Your task to perform on an android device: install app "Lyft - Rideshare, Bikes, Scooters & Transit" Image 0: 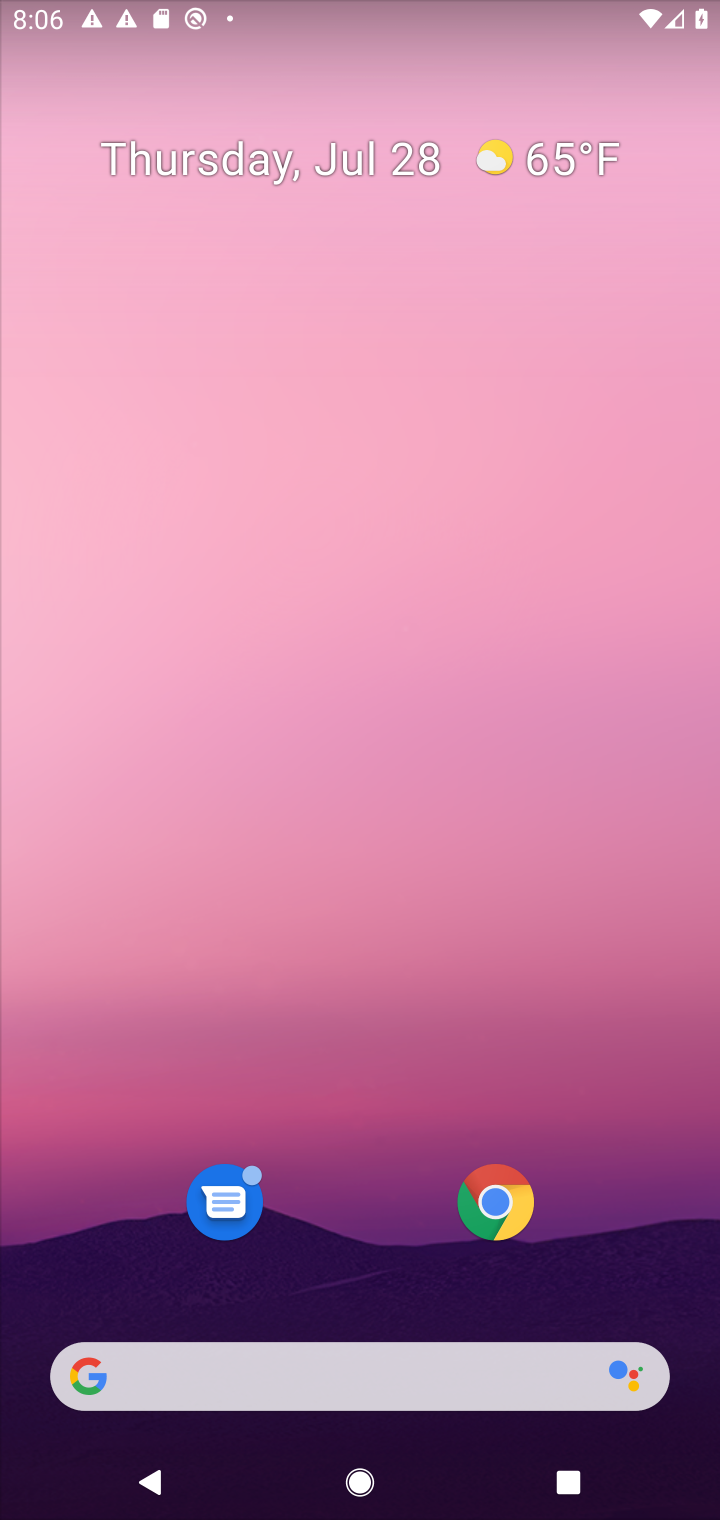
Step 0: drag from (358, 1308) to (405, 34)
Your task to perform on an android device: install app "Lyft - Rideshare, Bikes, Scooters & Transit" Image 1: 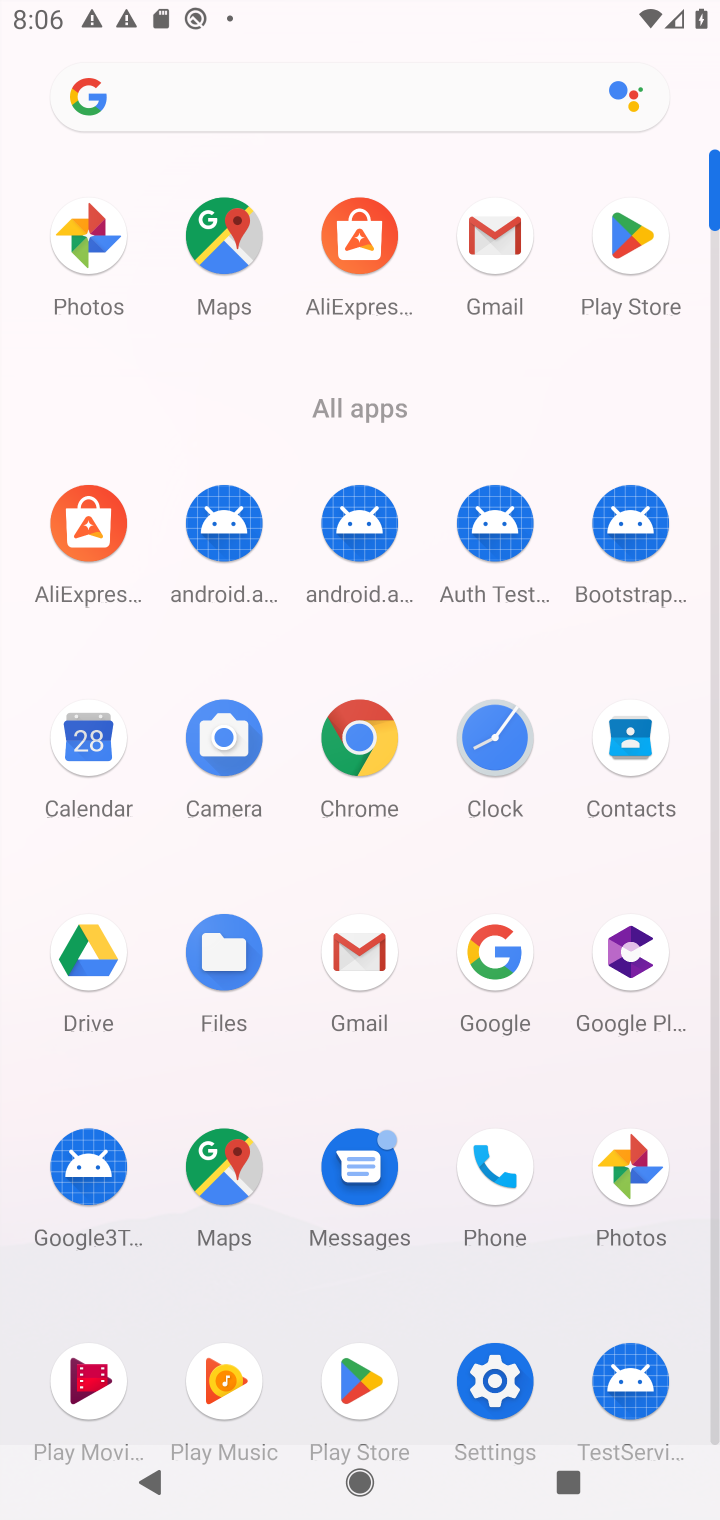
Step 1: click (625, 235)
Your task to perform on an android device: install app "Lyft - Rideshare, Bikes, Scooters & Transit" Image 2: 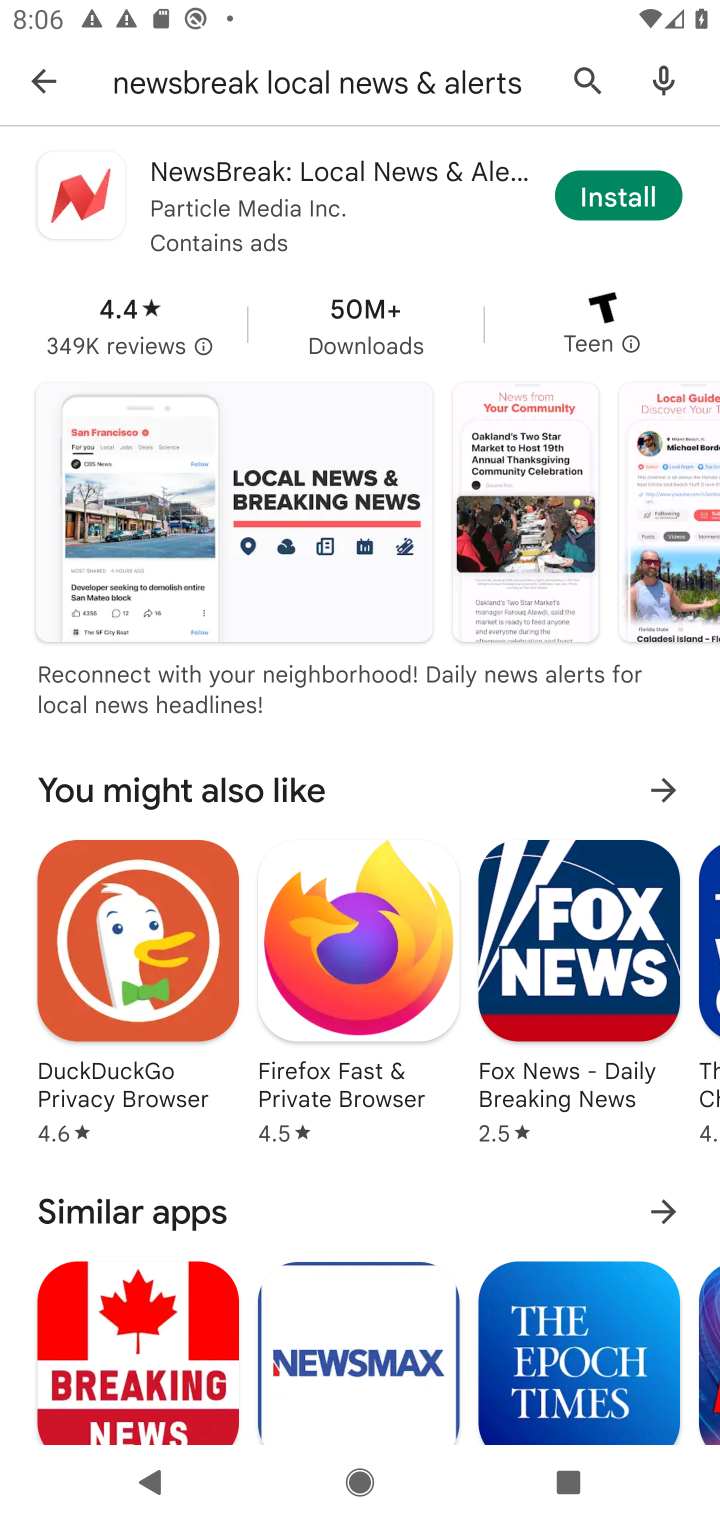
Step 2: click (576, 76)
Your task to perform on an android device: install app "Lyft - Rideshare, Bikes, Scooters & Transit" Image 3: 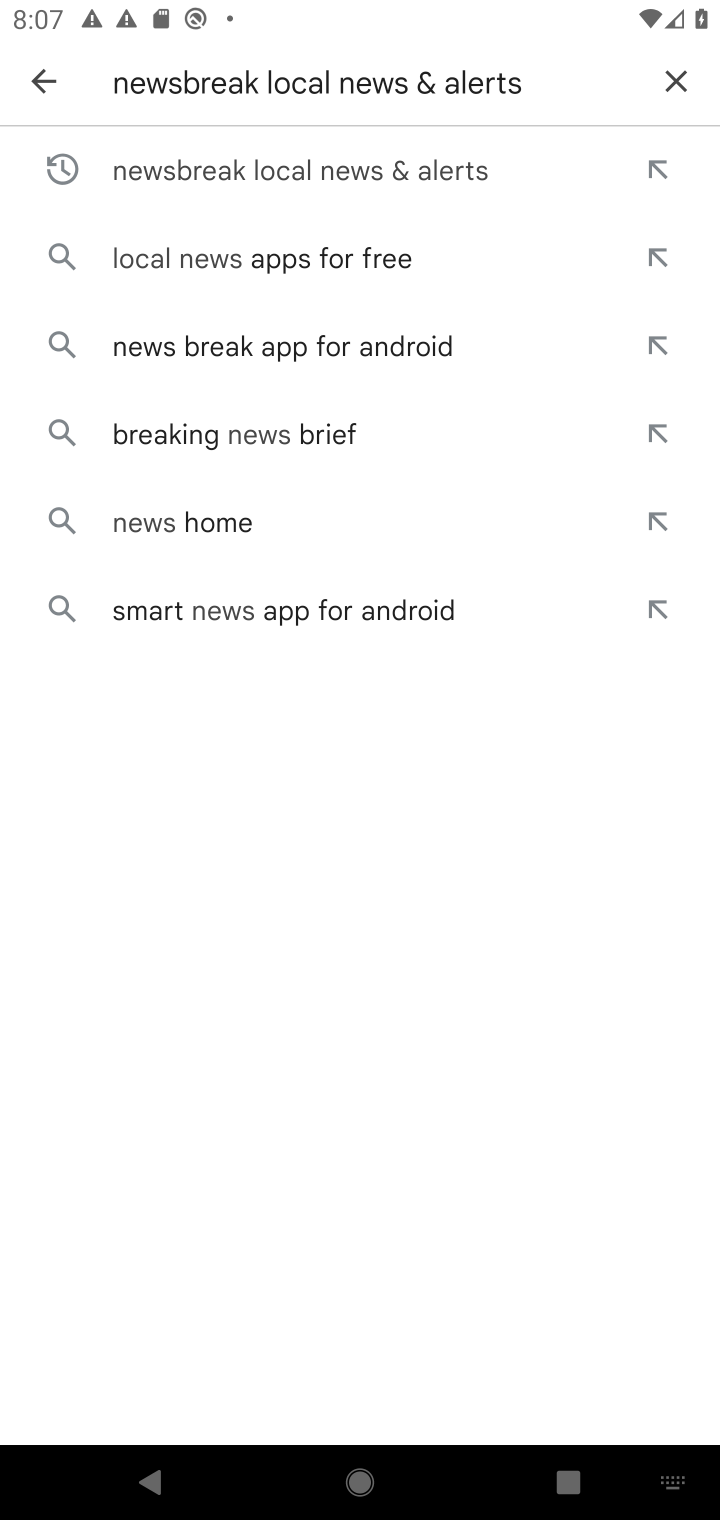
Step 3: click (668, 80)
Your task to perform on an android device: install app "Lyft - Rideshare, Bikes, Scooters & Transit" Image 4: 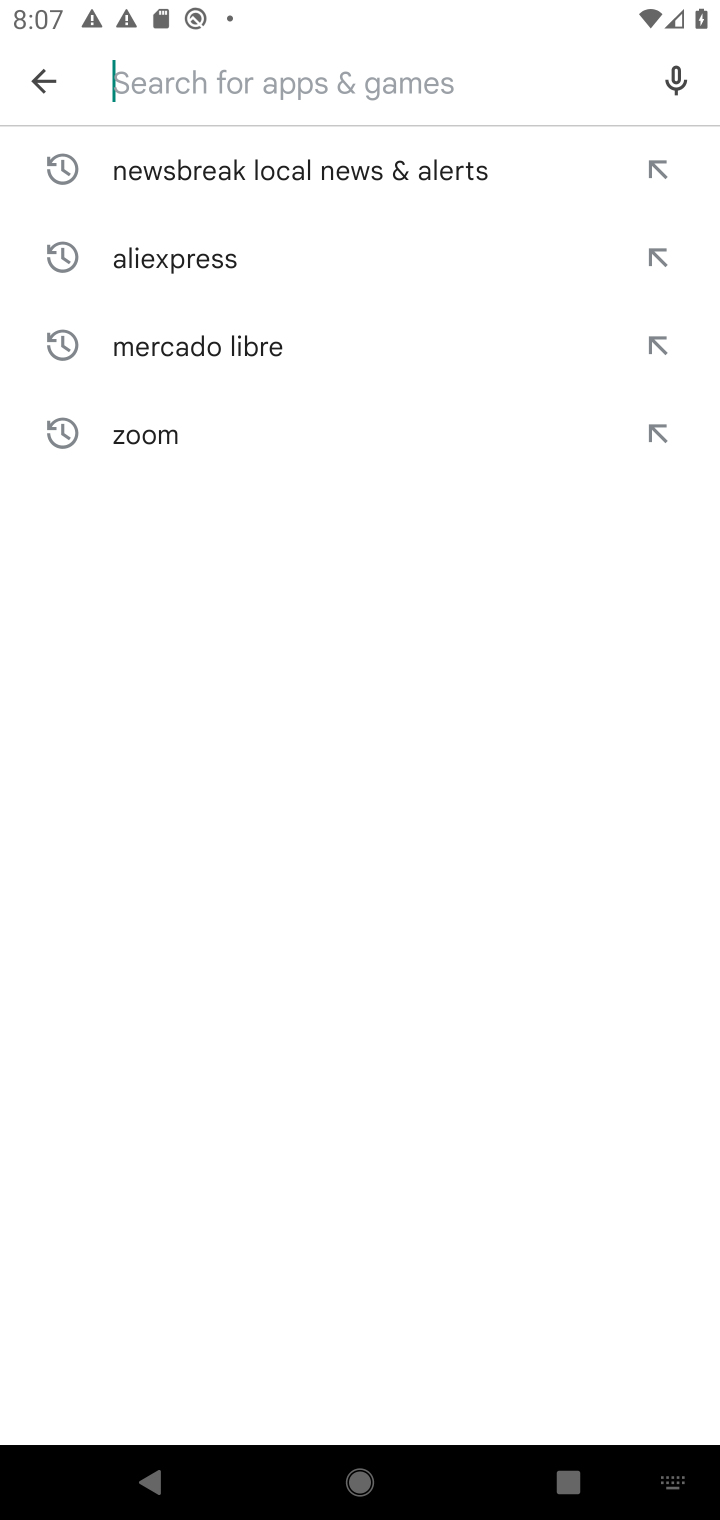
Step 4: type "Lyft - Rideshare, Bikes, Scooters & Transit"
Your task to perform on an android device: install app "Lyft - Rideshare, Bikes, Scooters & Transit" Image 5: 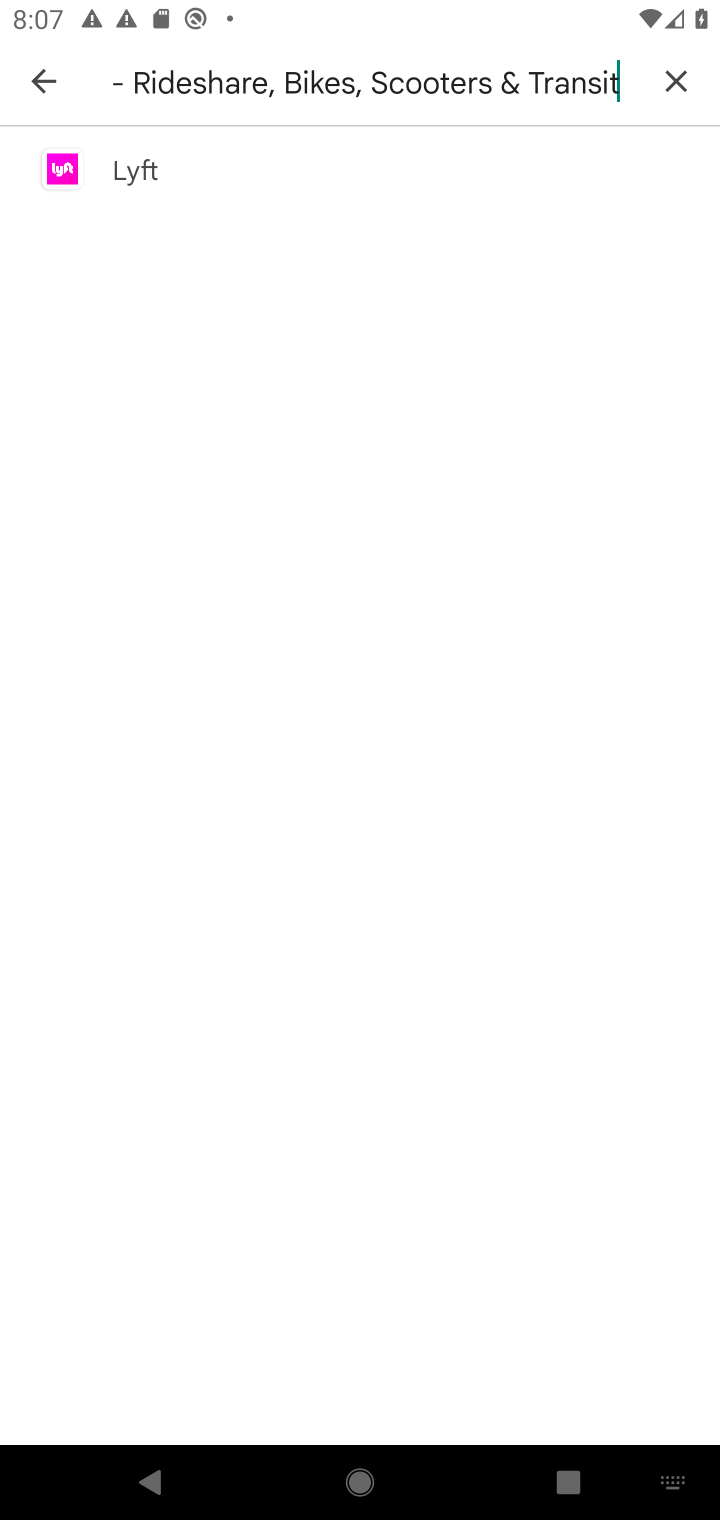
Step 5: click (169, 166)
Your task to perform on an android device: install app "Lyft - Rideshare, Bikes, Scooters & Transit" Image 6: 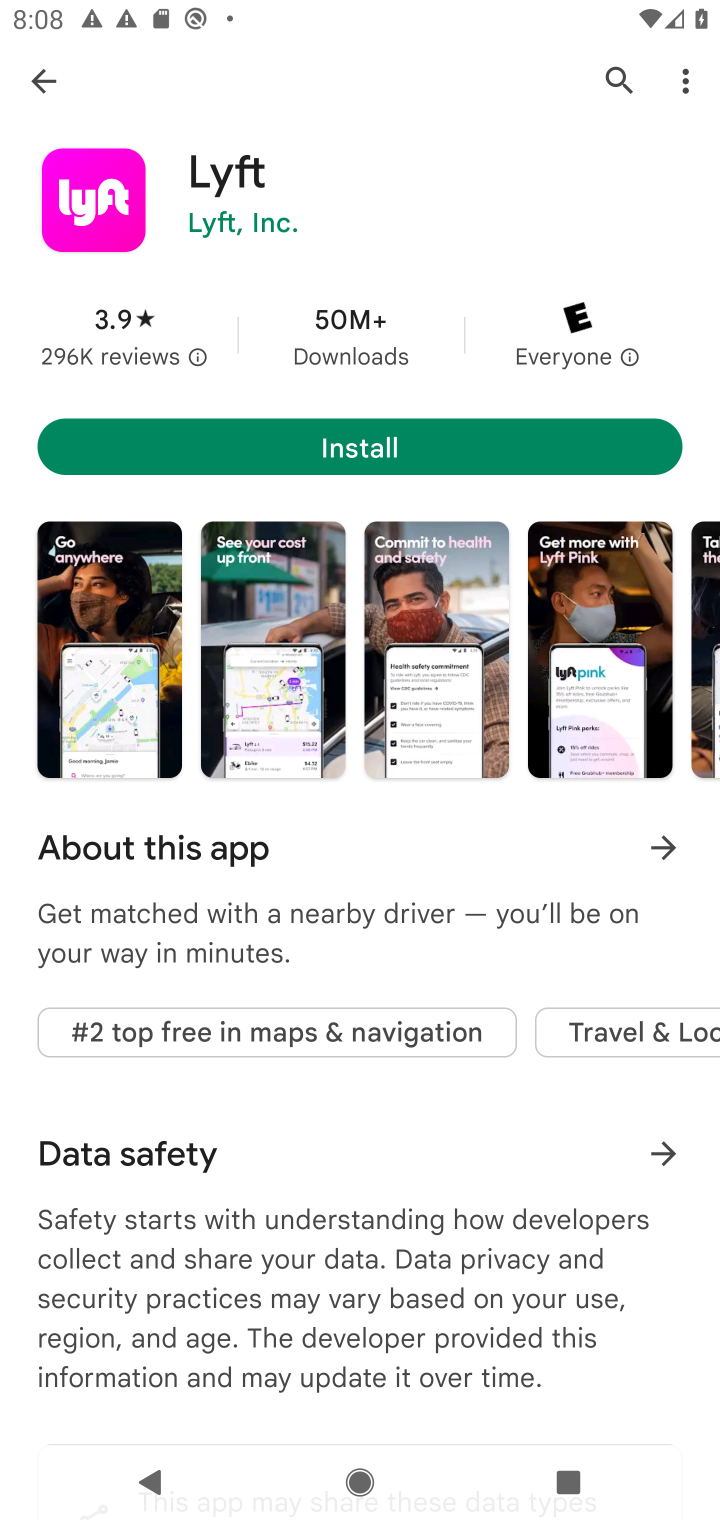
Step 6: click (339, 456)
Your task to perform on an android device: install app "Lyft - Rideshare, Bikes, Scooters & Transit" Image 7: 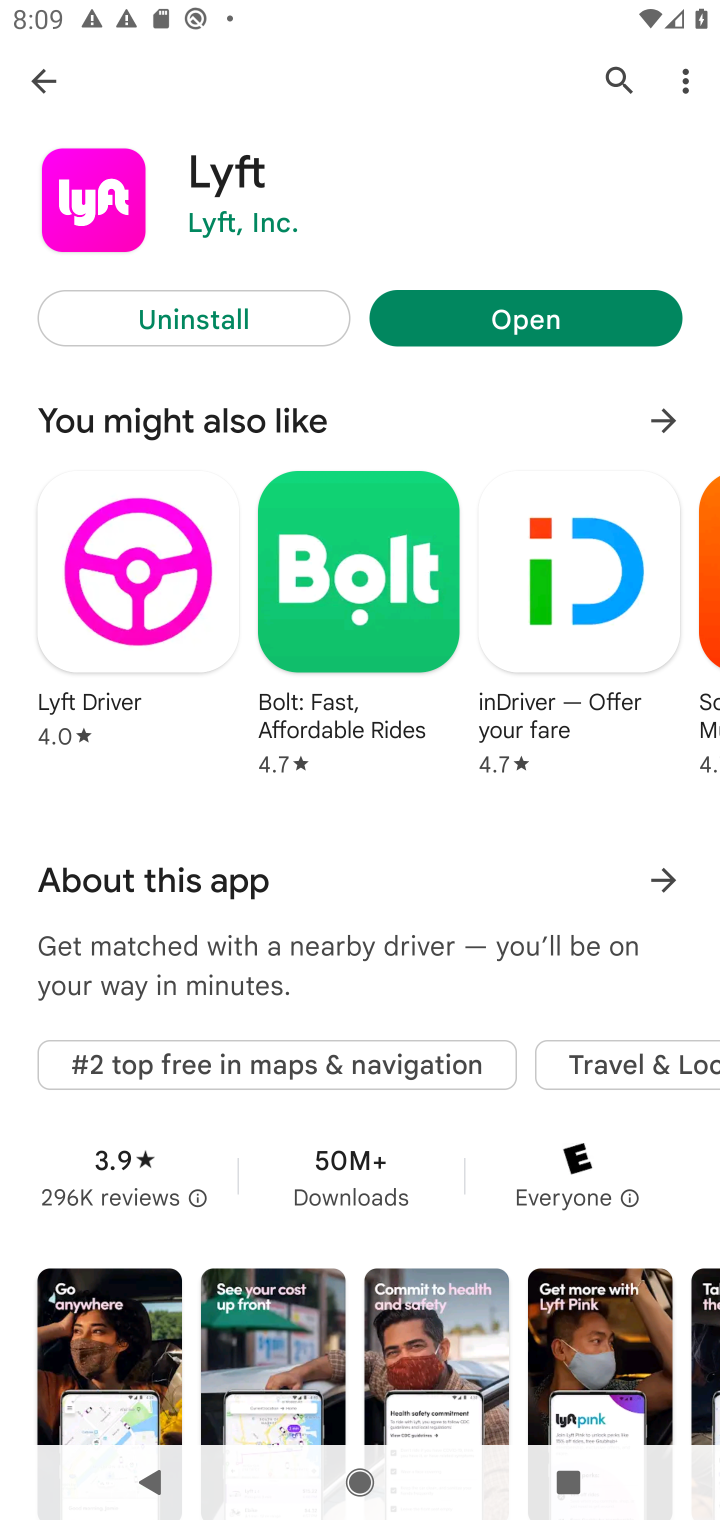
Step 7: click (557, 330)
Your task to perform on an android device: install app "Lyft - Rideshare, Bikes, Scooters & Transit" Image 8: 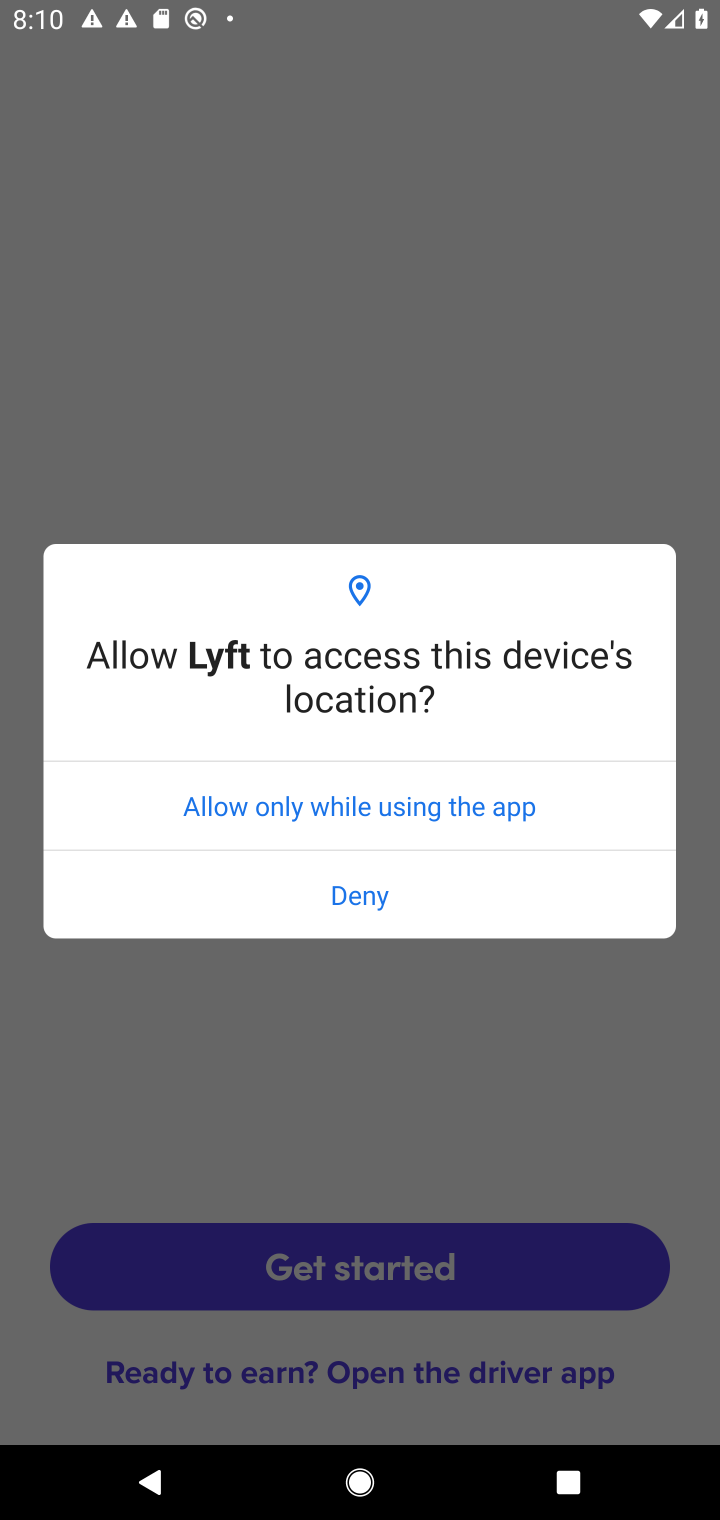
Step 8: click (362, 792)
Your task to perform on an android device: install app "Lyft - Rideshare, Bikes, Scooters & Transit" Image 9: 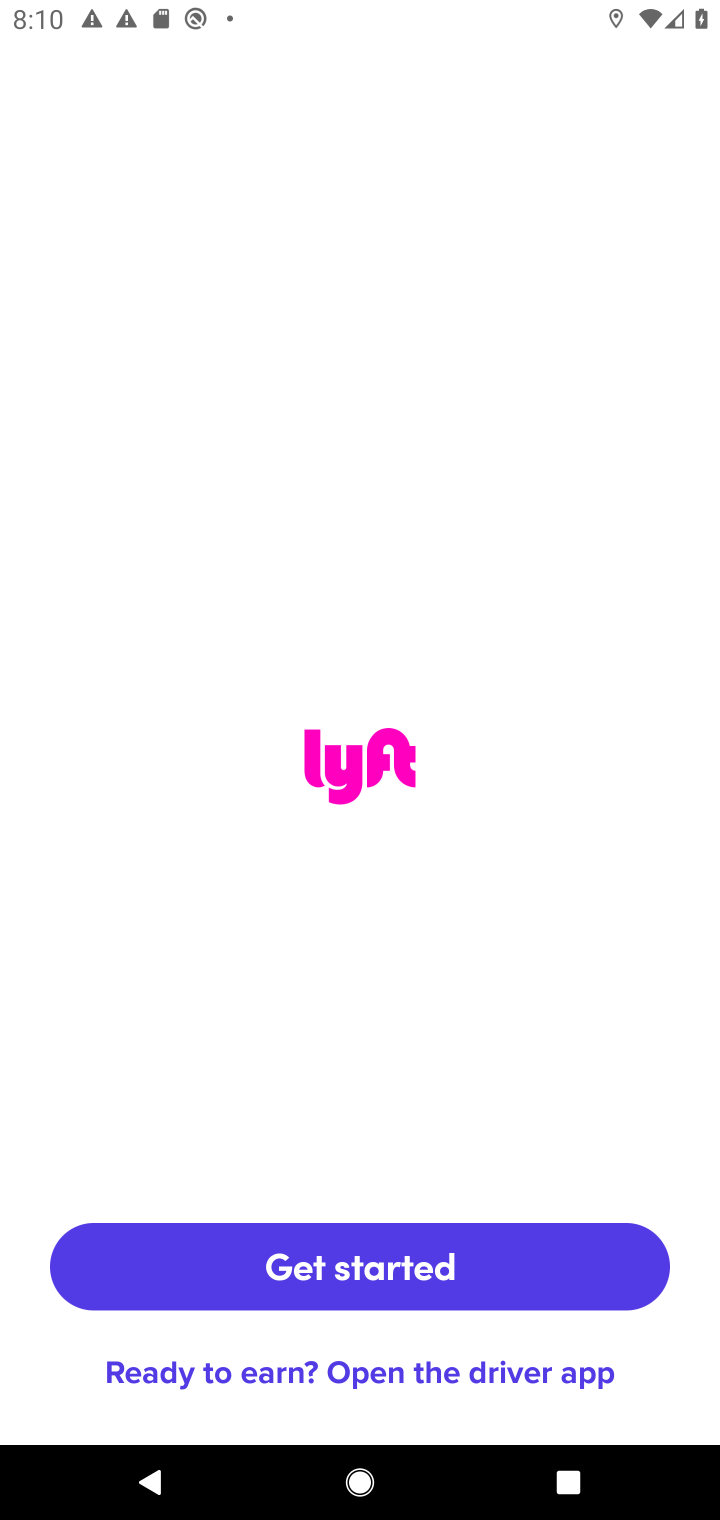
Step 9: click (364, 1277)
Your task to perform on an android device: install app "Lyft - Rideshare, Bikes, Scooters & Transit" Image 10: 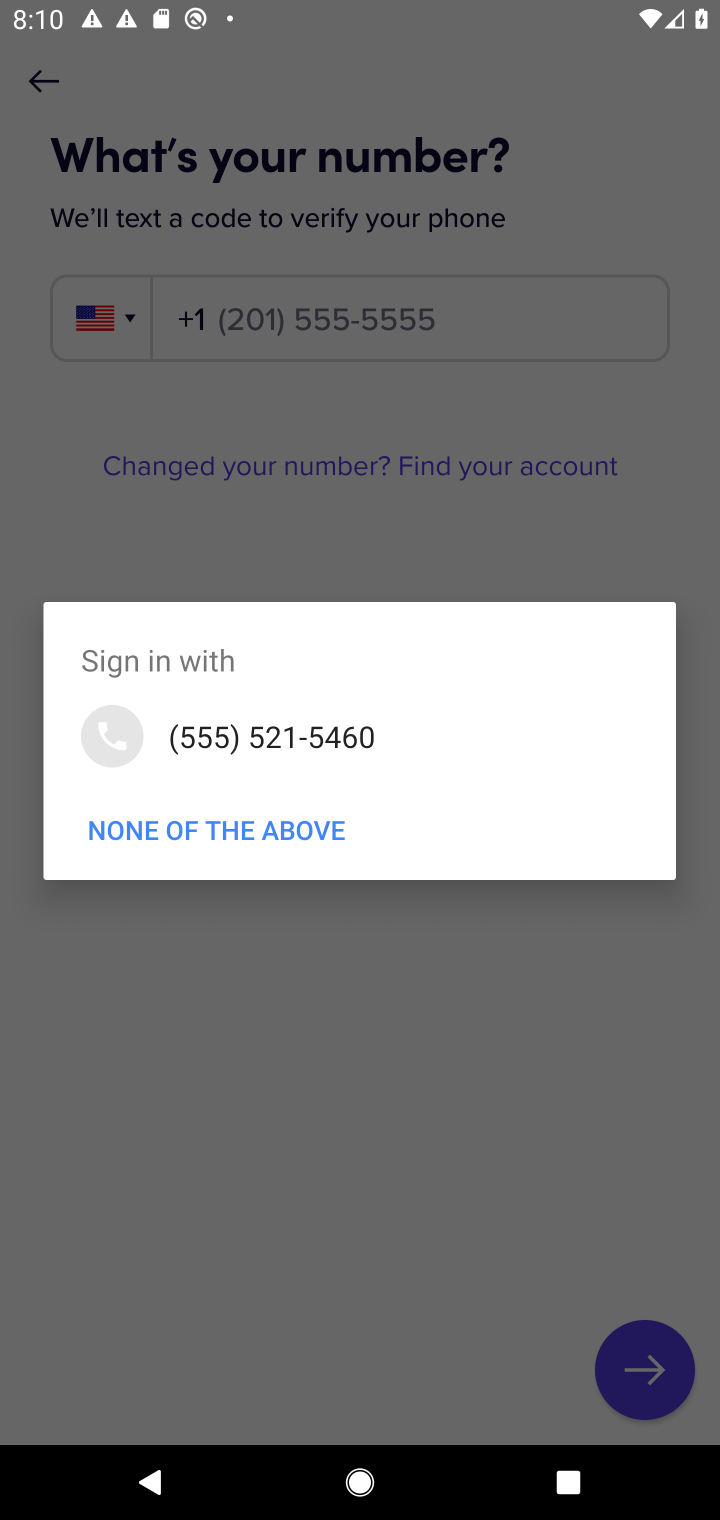
Step 10: click (278, 738)
Your task to perform on an android device: install app "Lyft - Rideshare, Bikes, Scooters & Transit" Image 11: 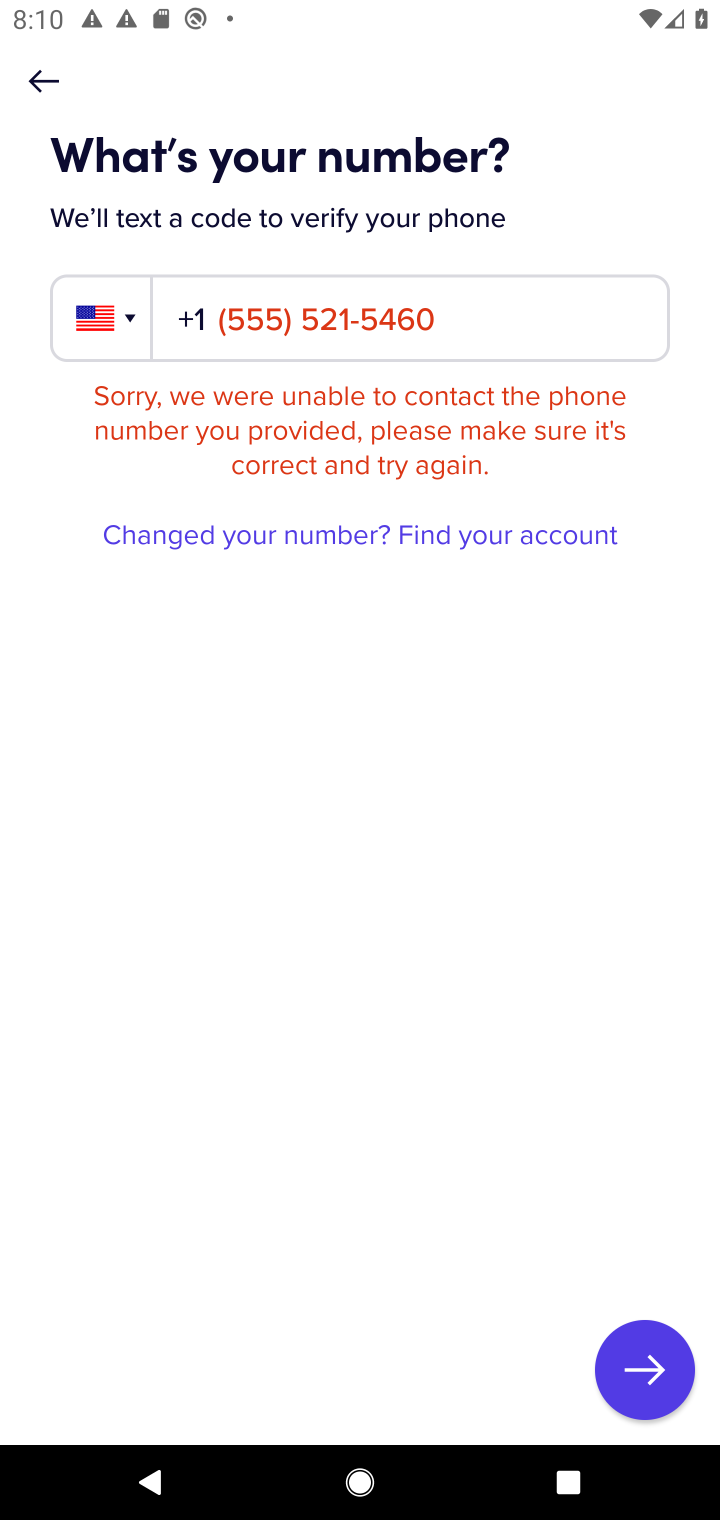
Step 11: click (643, 1374)
Your task to perform on an android device: install app "Lyft - Rideshare, Bikes, Scooters & Transit" Image 12: 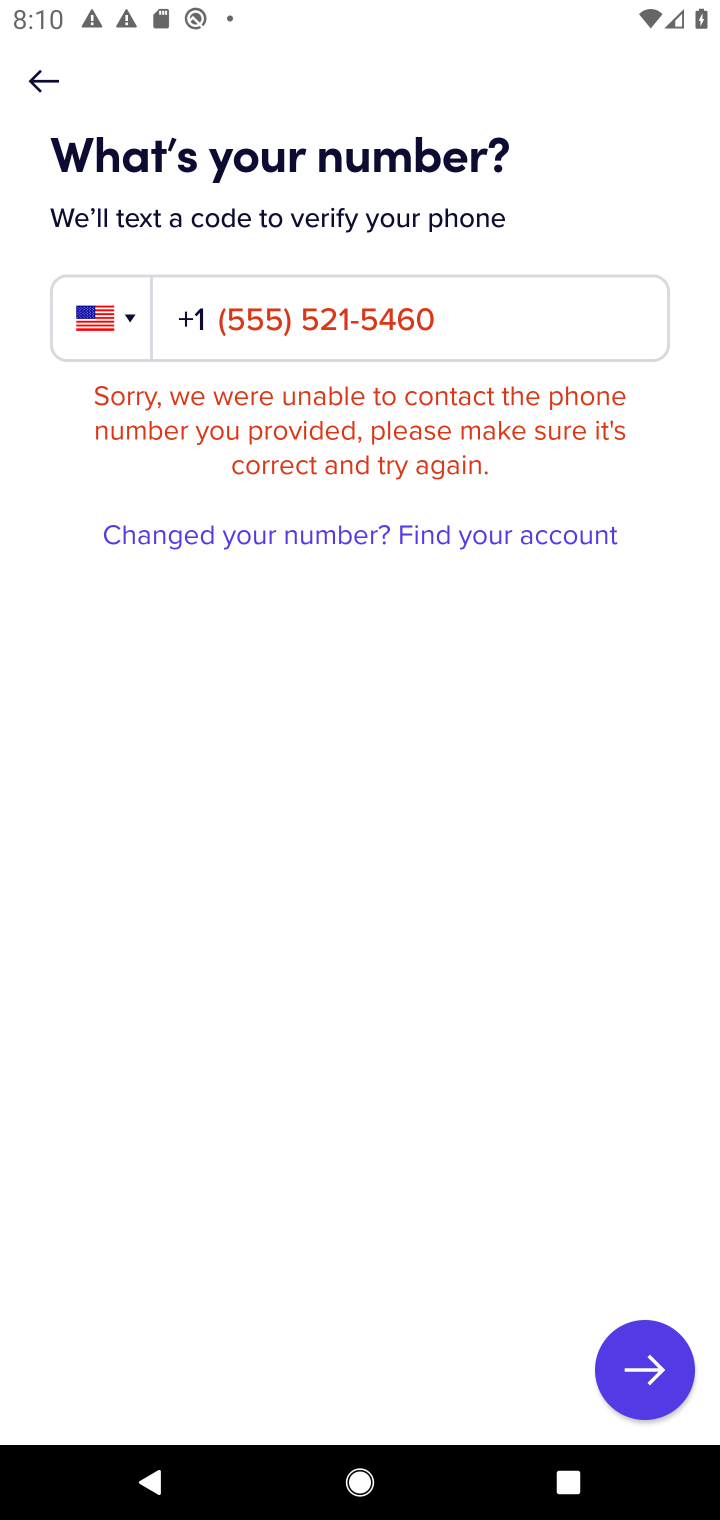
Step 12: click (345, 334)
Your task to perform on an android device: install app "Lyft - Rideshare, Bikes, Scooters & Transit" Image 13: 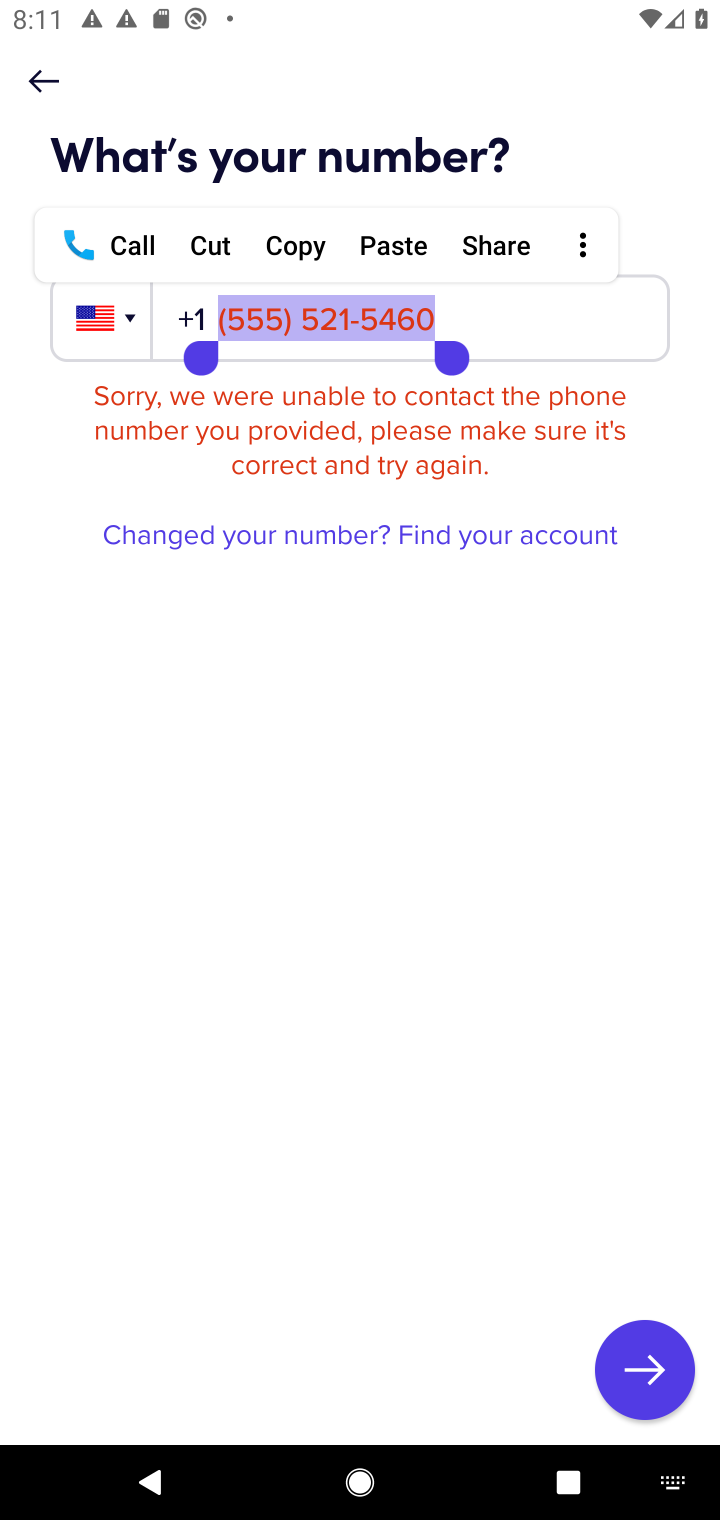
Step 13: task complete